Your task to perform on an android device: add a contact in the contacts app Image 0: 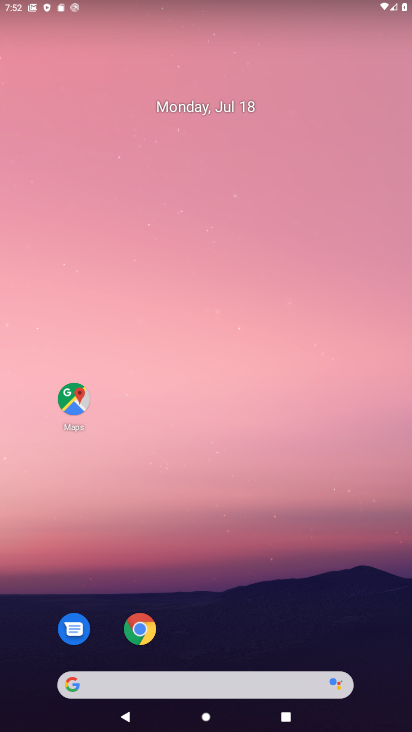
Step 0: drag from (238, 575) to (268, 187)
Your task to perform on an android device: add a contact in the contacts app Image 1: 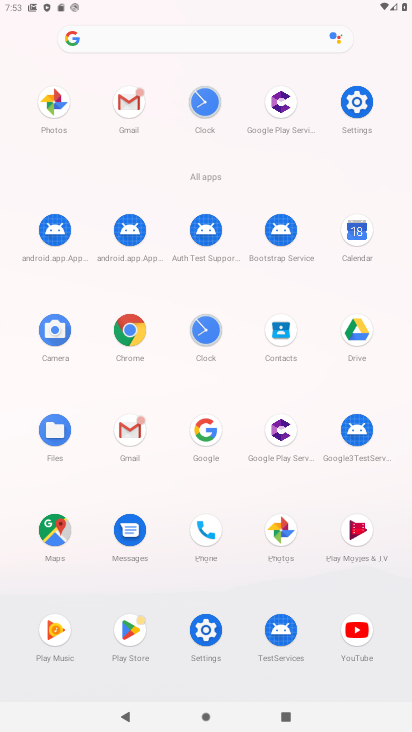
Step 1: click (283, 328)
Your task to perform on an android device: add a contact in the contacts app Image 2: 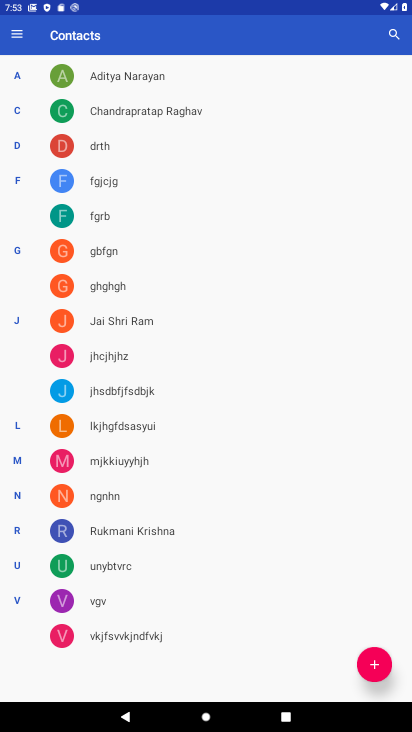
Step 2: click (375, 669)
Your task to perform on an android device: add a contact in the contacts app Image 3: 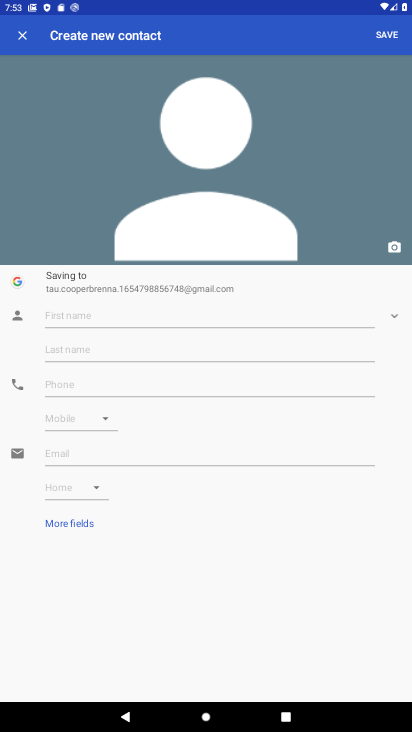
Step 3: click (168, 323)
Your task to perform on an android device: add a contact in the contacts app Image 4: 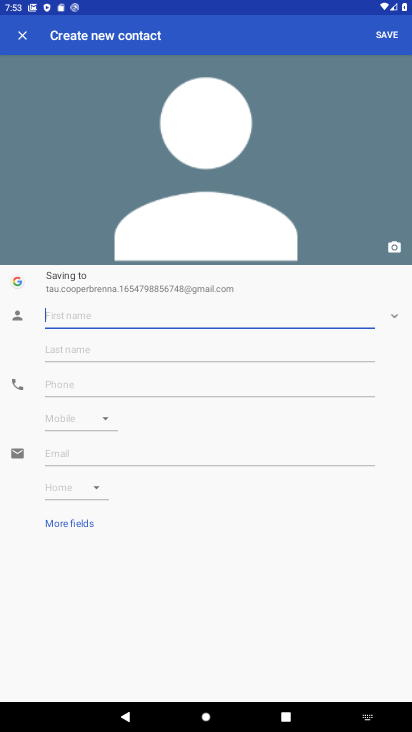
Step 4: click (210, 381)
Your task to perform on an android device: add a contact in the contacts app Image 5: 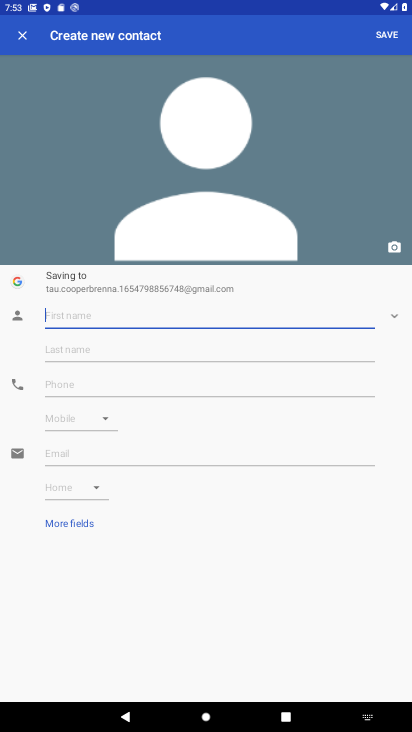
Step 5: type "hjhjjh"
Your task to perform on an android device: add a contact in the contacts app Image 6: 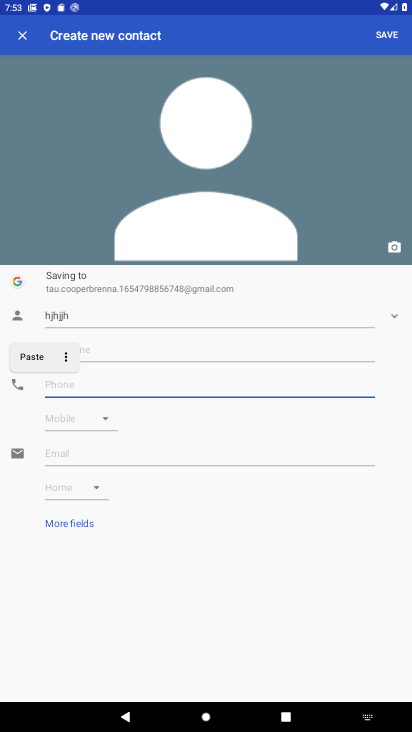
Step 6: type "7897897898"
Your task to perform on an android device: add a contact in the contacts app Image 7: 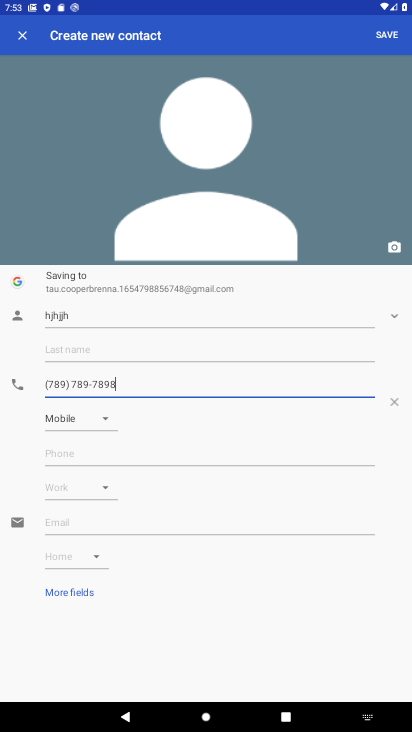
Step 7: click (390, 43)
Your task to perform on an android device: add a contact in the contacts app Image 8: 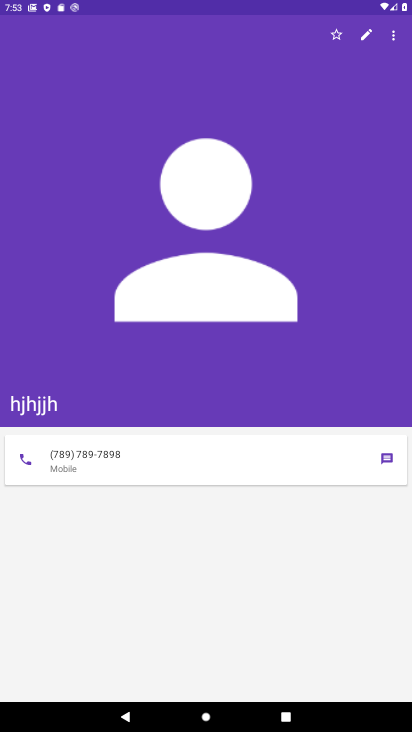
Step 8: task complete